Your task to perform on an android device: Add bose soundlink mini to the cart on costco.com, then select checkout. Image 0: 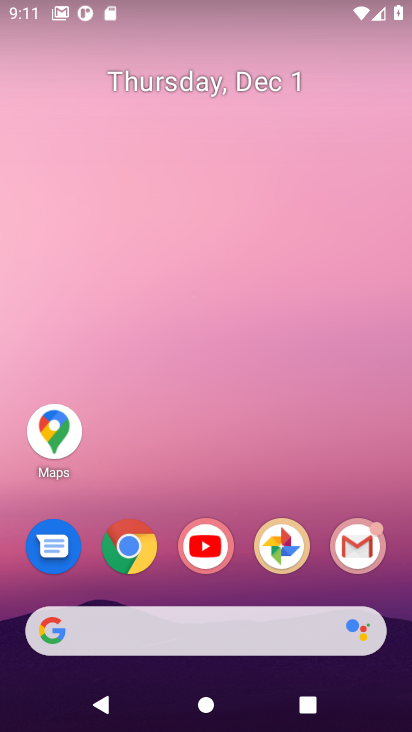
Step 0: click (122, 547)
Your task to perform on an android device: Add bose soundlink mini to the cart on costco.com, then select checkout. Image 1: 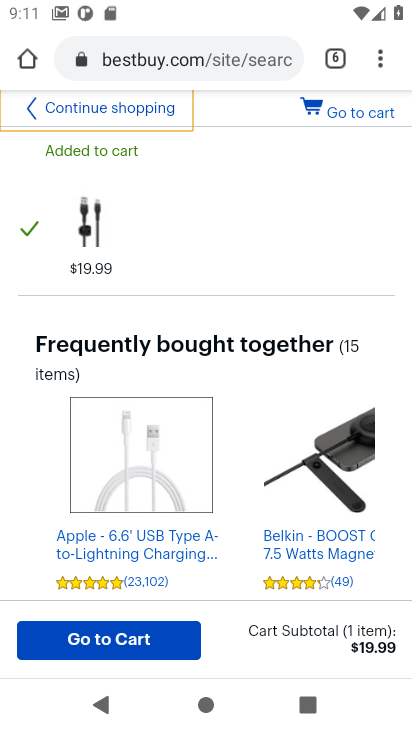
Step 1: click (176, 56)
Your task to perform on an android device: Add bose soundlink mini to the cart on costco.com, then select checkout. Image 2: 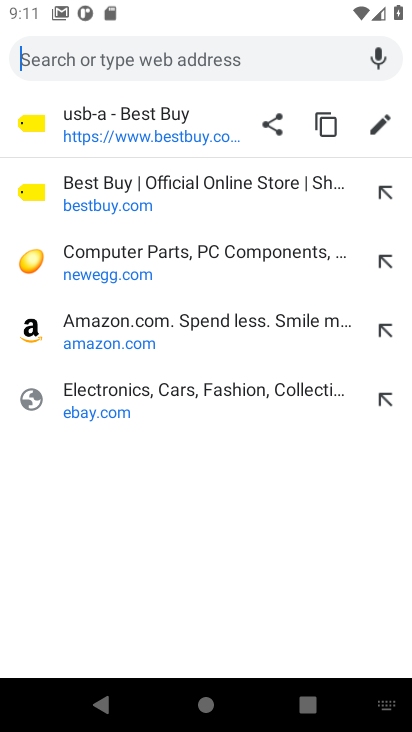
Step 2: type "costco.com"
Your task to perform on an android device: Add bose soundlink mini to the cart on costco.com, then select checkout. Image 3: 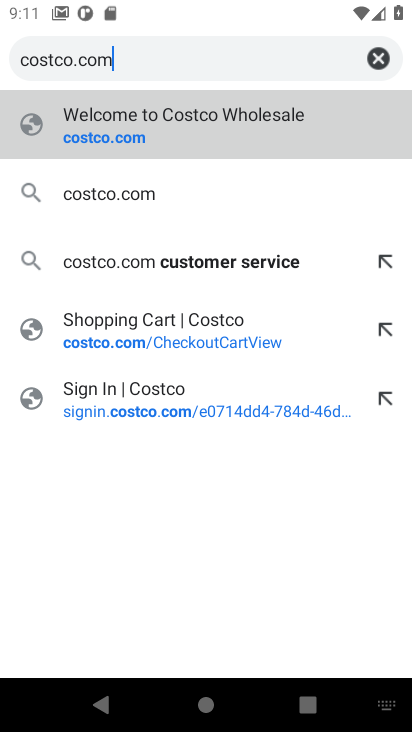
Step 3: click (106, 142)
Your task to perform on an android device: Add bose soundlink mini to the cart on costco.com, then select checkout. Image 4: 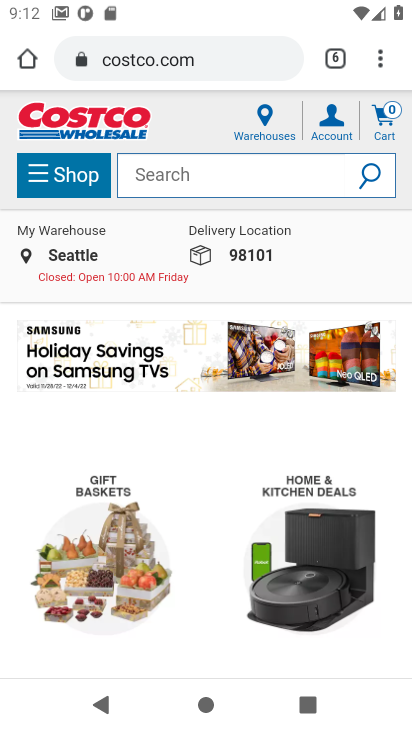
Step 4: click (161, 186)
Your task to perform on an android device: Add bose soundlink mini to the cart on costco.com, then select checkout. Image 5: 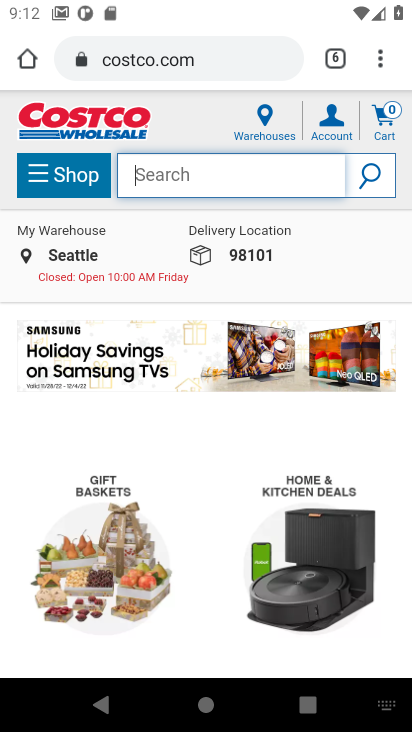
Step 5: type "bose soundlink mini"
Your task to perform on an android device: Add bose soundlink mini to the cart on costco.com, then select checkout. Image 6: 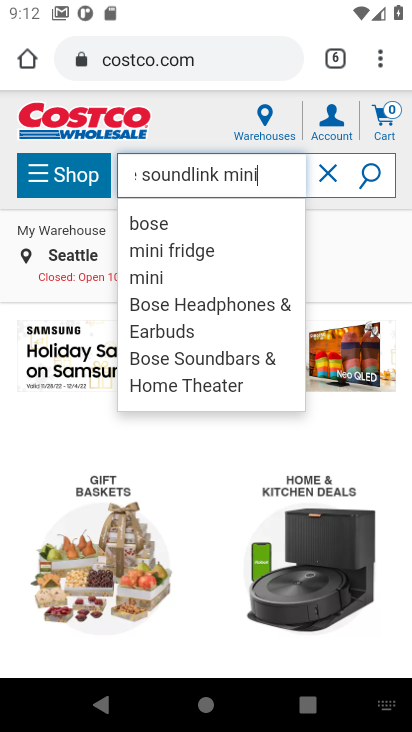
Step 6: click (368, 181)
Your task to perform on an android device: Add bose soundlink mini to the cart on costco.com, then select checkout. Image 7: 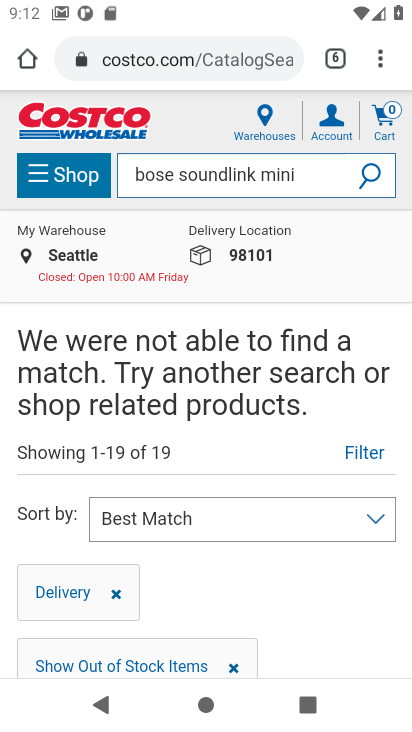
Step 7: task complete